Your task to perform on an android device: delete browsing data in the chrome app Image 0: 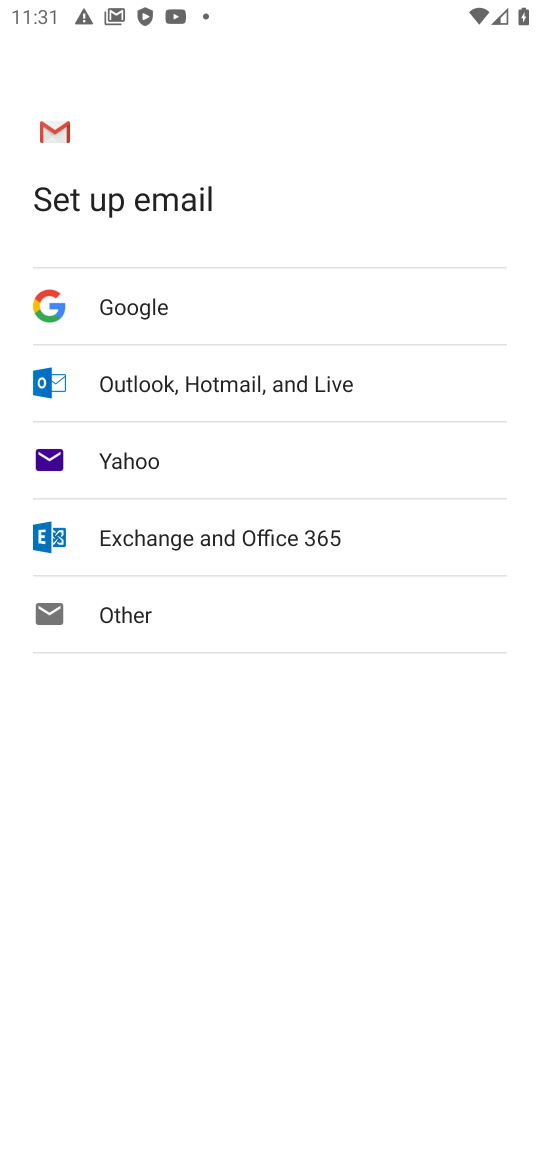
Step 0: press home button
Your task to perform on an android device: delete browsing data in the chrome app Image 1: 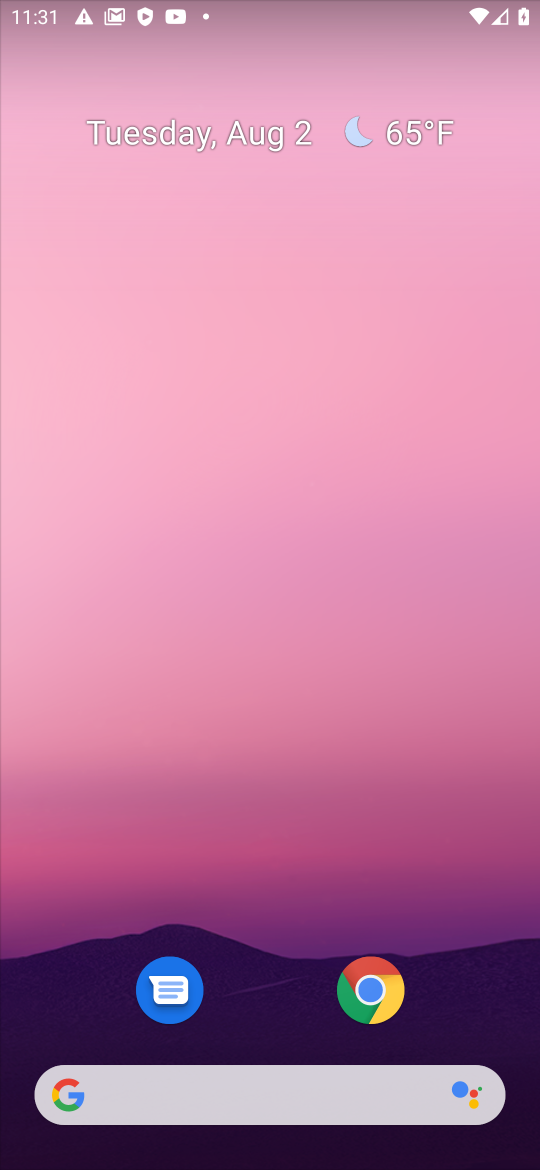
Step 1: click (369, 1005)
Your task to perform on an android device: delete browsing data in the chrome app Image 2: 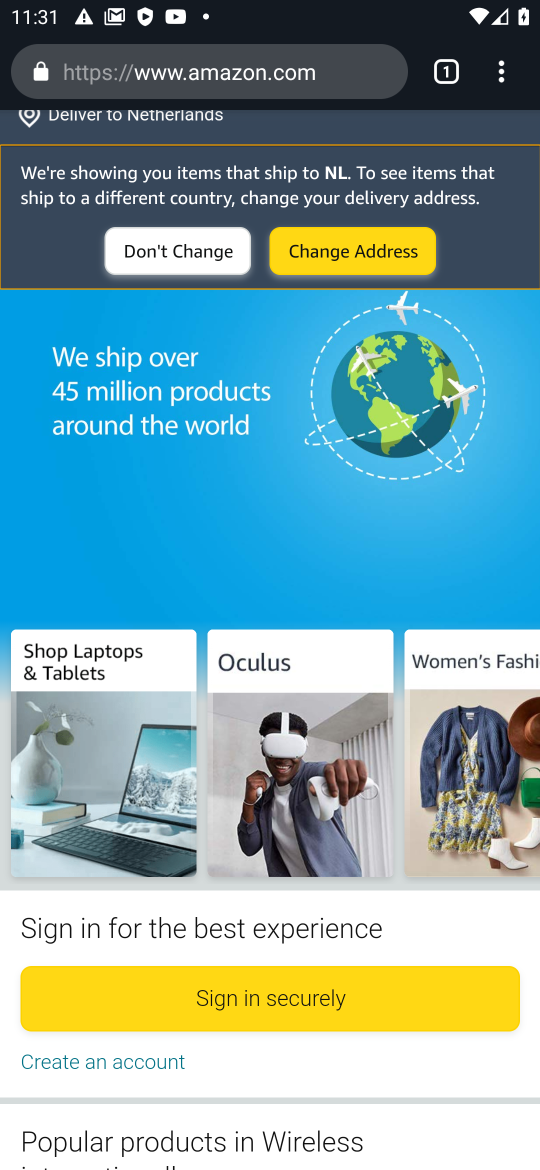
Step 2: click (497, 70)
Your task to perform on an android device: delete browsing data in the chrome app Image 3: 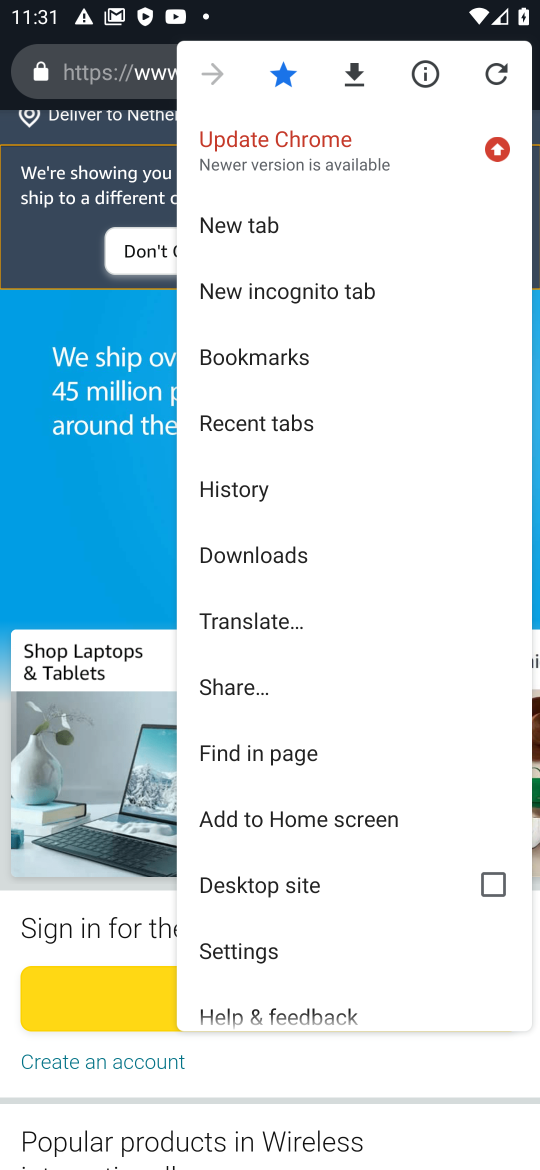
Step 3: click (246, 493)
Your task to perform on an android device: delete browsing data in the chrome app Image 4: 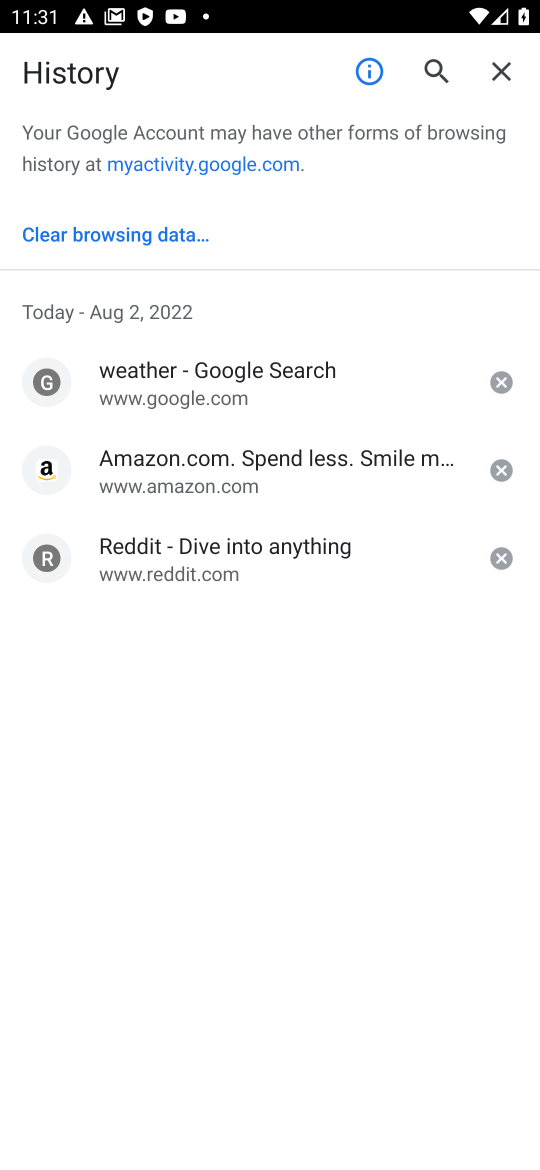
Step 4: click (115, 235)
Your task to perform on an android device: delete browsing data in the chrome app Image 5: 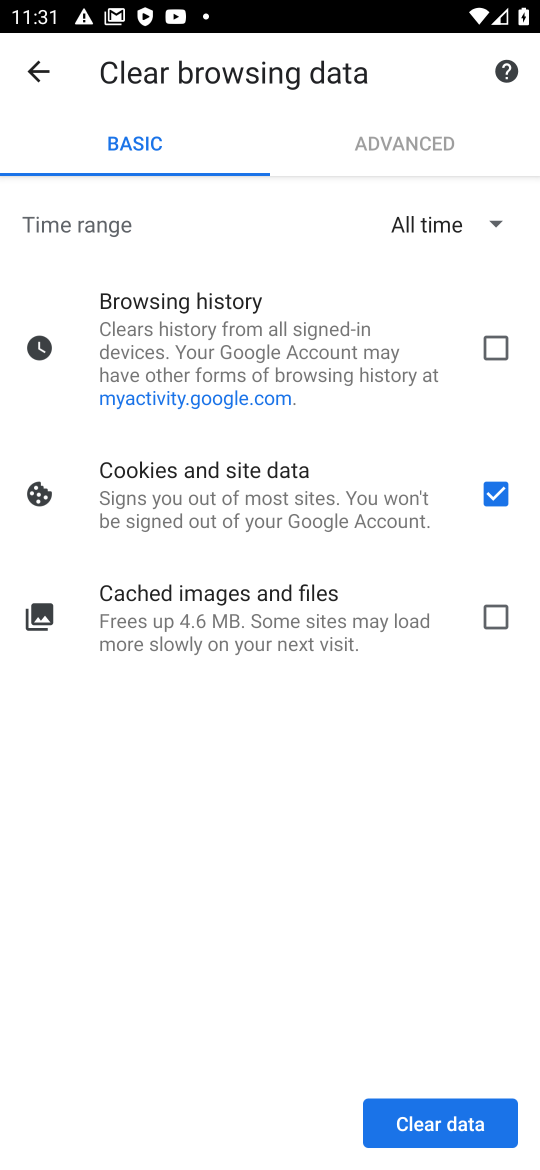
Step 5: click (497, 347)
Your task to perform on an android device: delete browsing data in the chrome app Image 6: 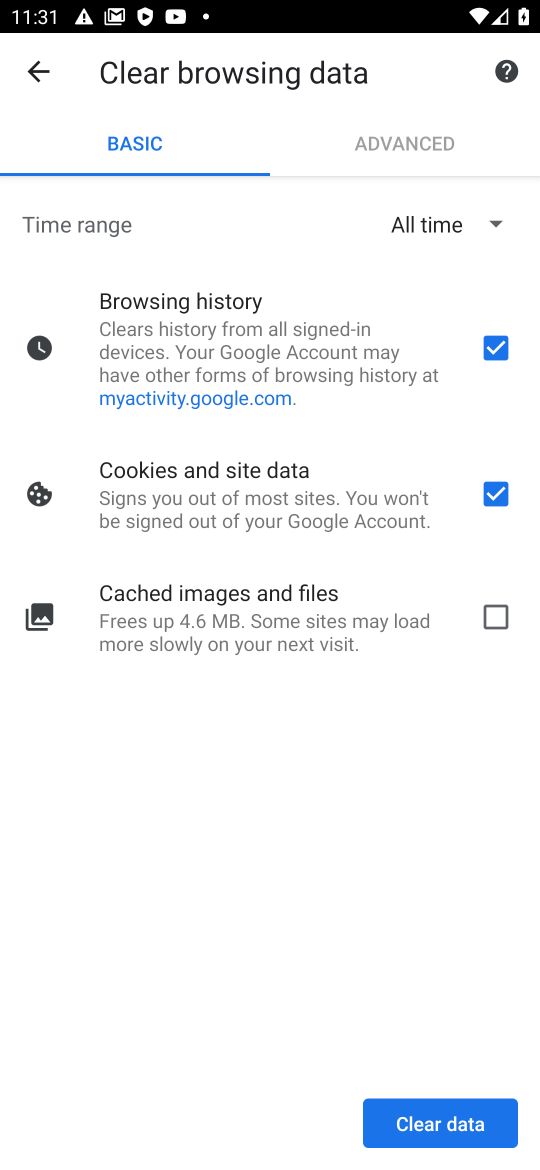
Step 6: click (500, 610)
Your task to perform on an android device: delete browsing data in the chrome app Image 7: 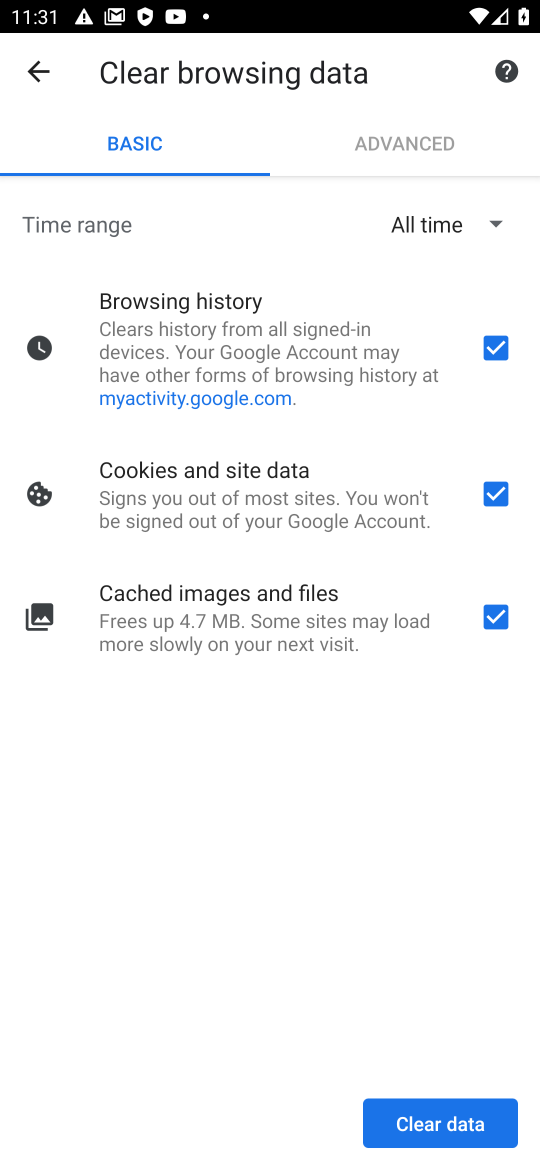
Step 7: click (484, 1123)
Your task to perform on an android device: delete browsing data in the chrome app Image 8: 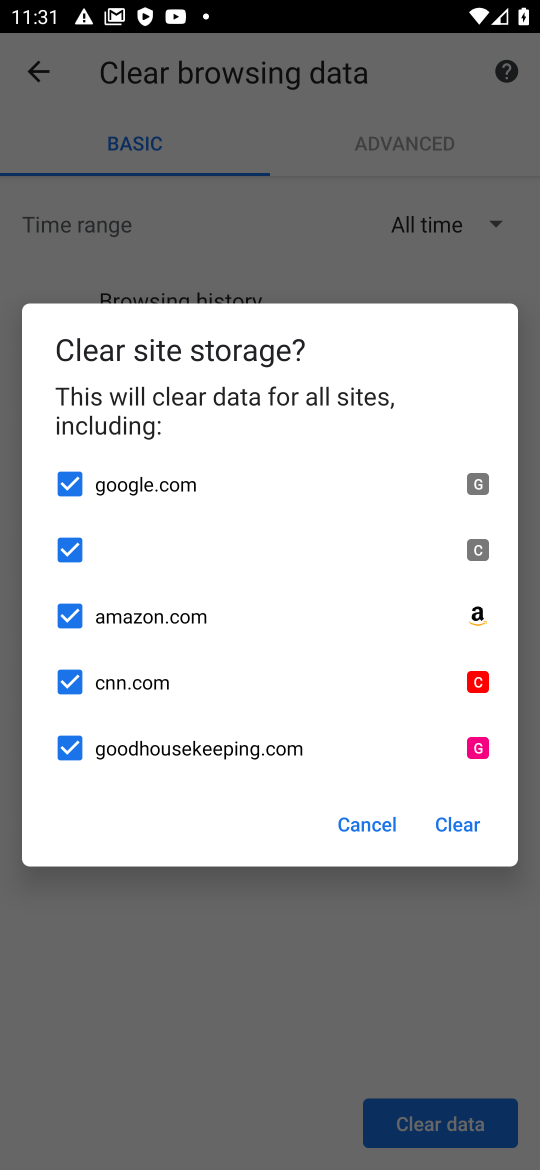
Step 8: click (469, 827)
Your task to perform on an android device: delete browsing data in the chrome app Image 9: 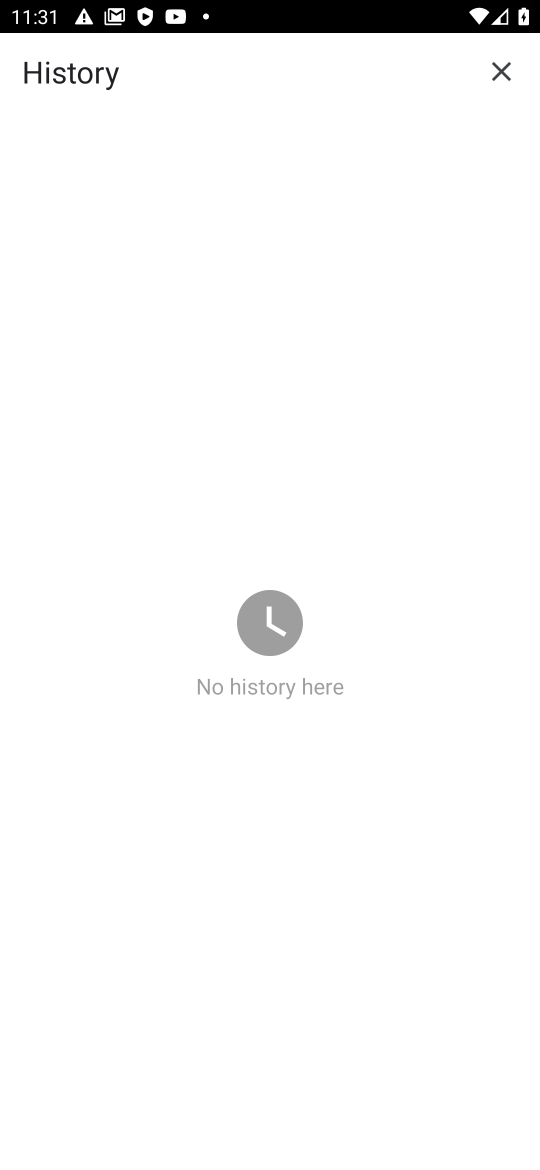
Step 9: task complete